Your task to perform on an android device: Open the Play Movies app and select the watchlist tab. Image 0: 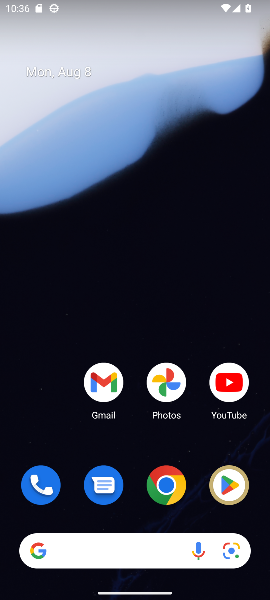
Step 0: drag from (192, 428) to (207, 149)
Your task to perform on an android device: Open the Play Movies app and select the watchlist tab. Image 1: 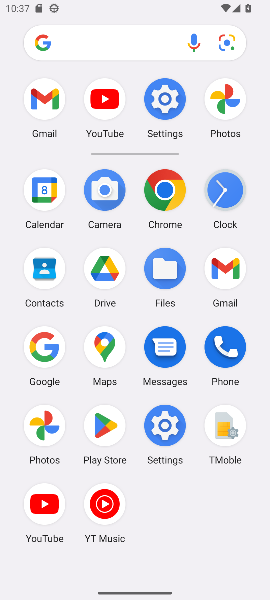
Step 1: task complete